Your task to perform on an android device: Go to privacy settings Image 0: 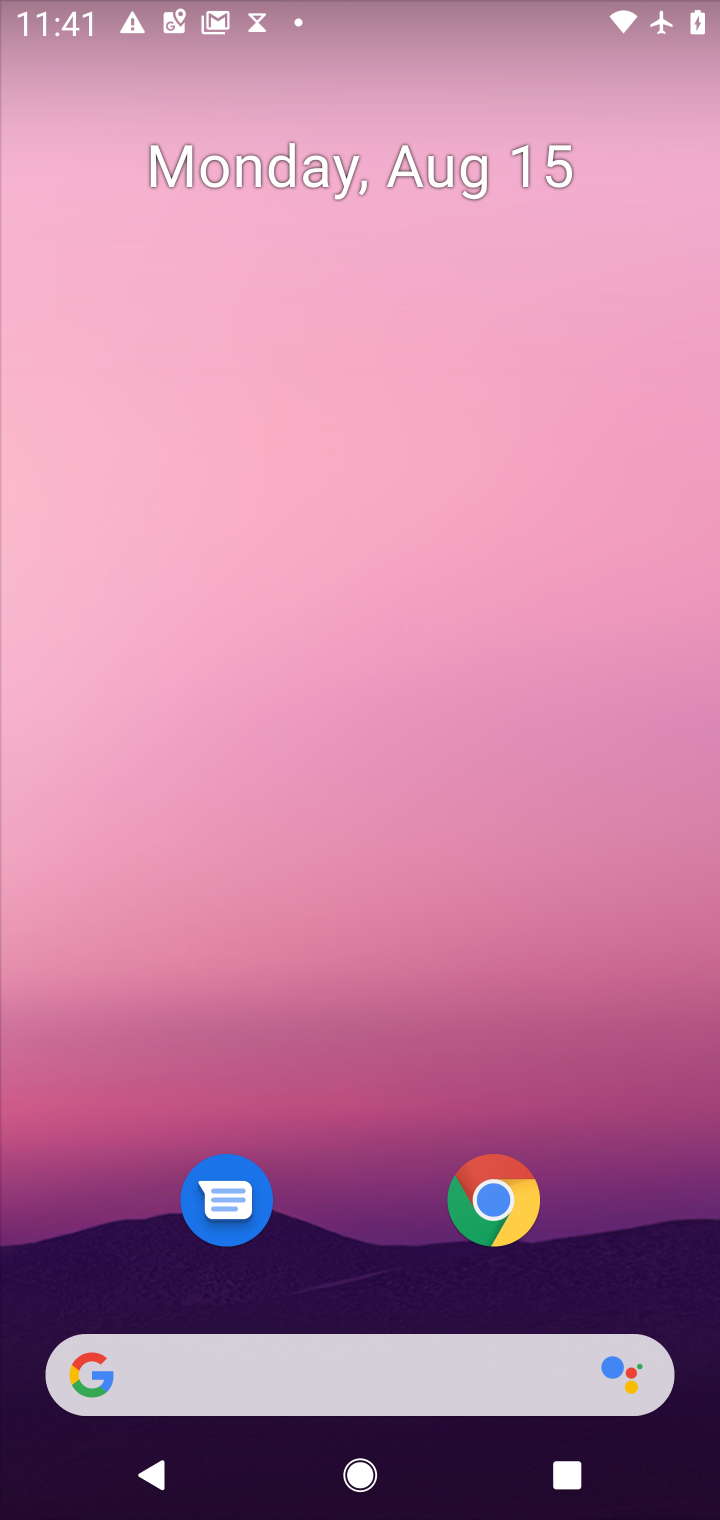
Step 0: drag from (189, 415) to (189, 310)
Your task to perform on an android device: Go to privacy settings Image 1: 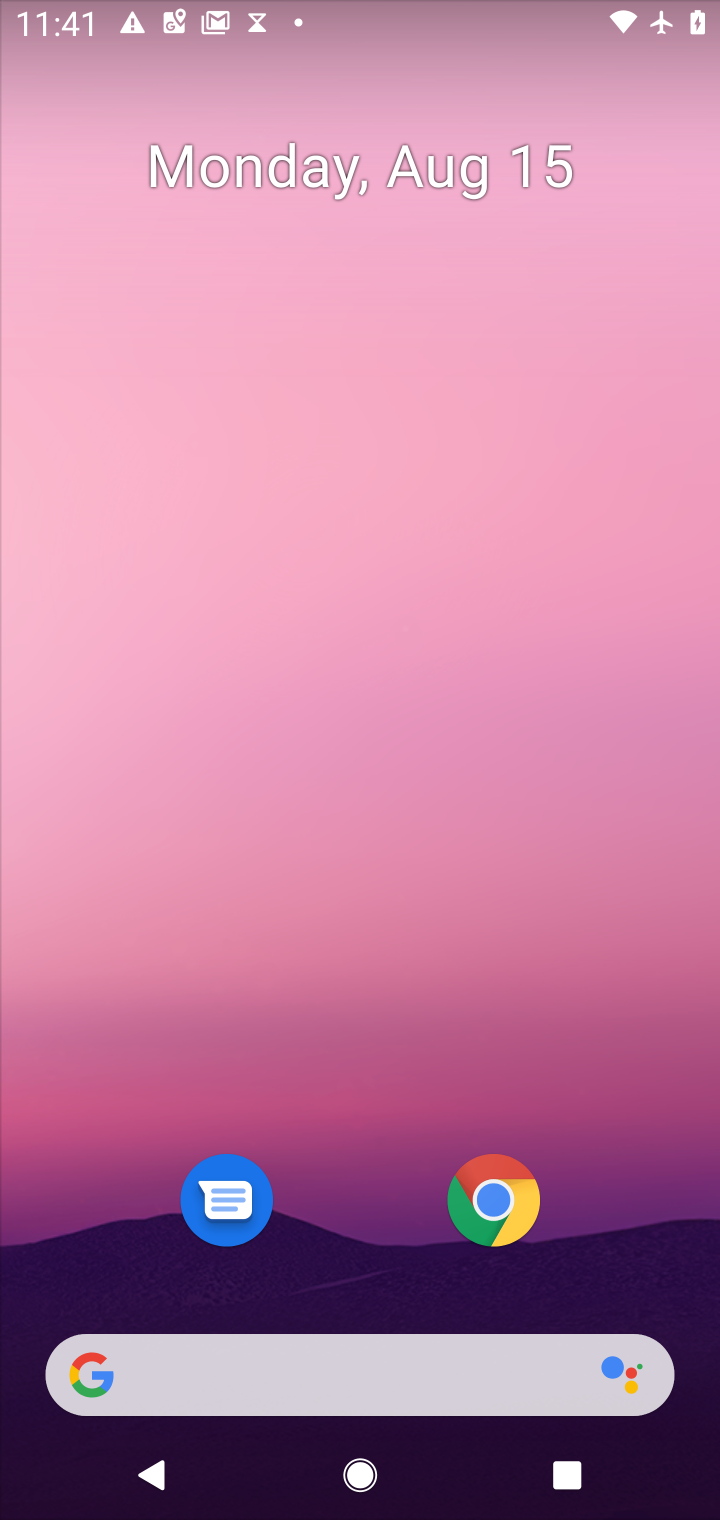
Step 1: drag from (338, 1189) to (417, 539)
Your task to perform on an android device: Go to privacy settings Image 2: 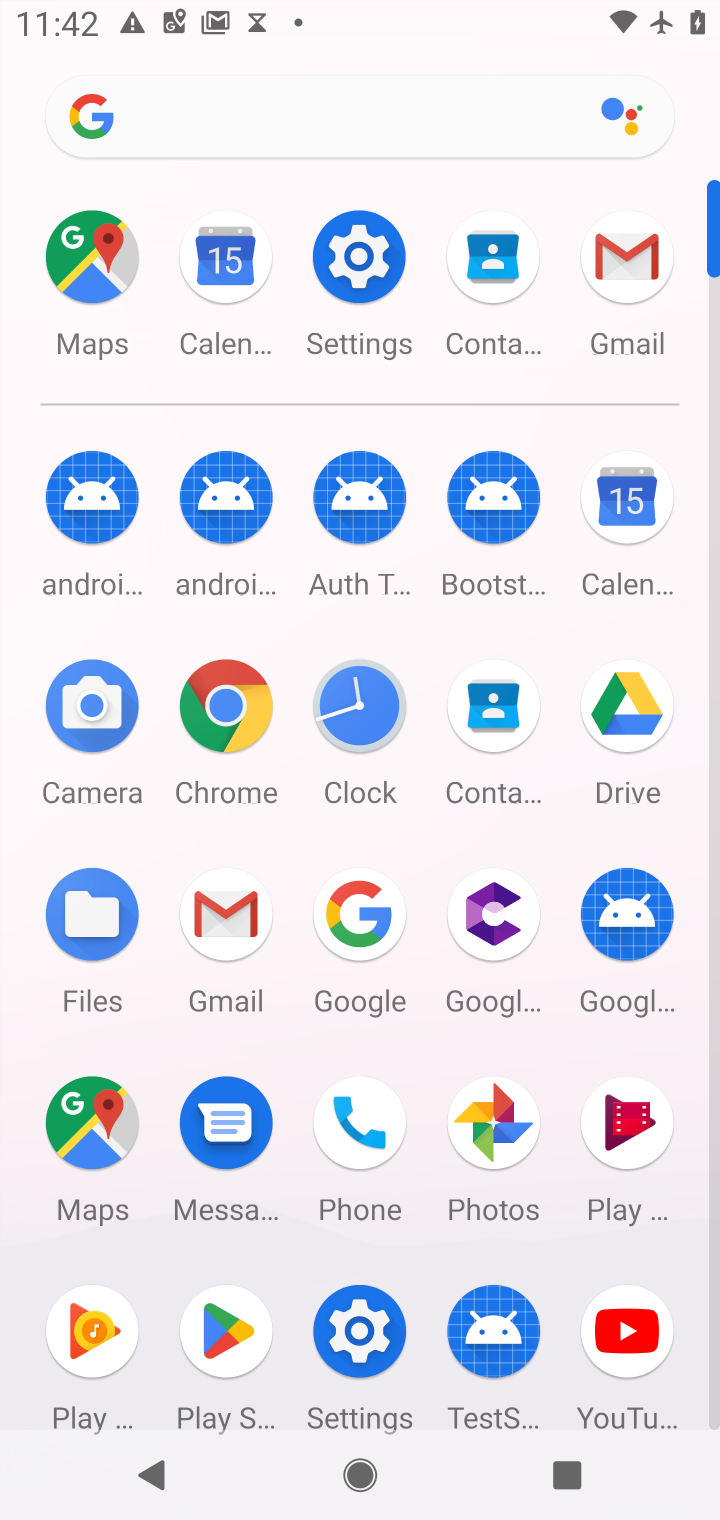
Step 2: click (362, 274)
Your task to perform on an android device: Go to privacy settings Image 3: 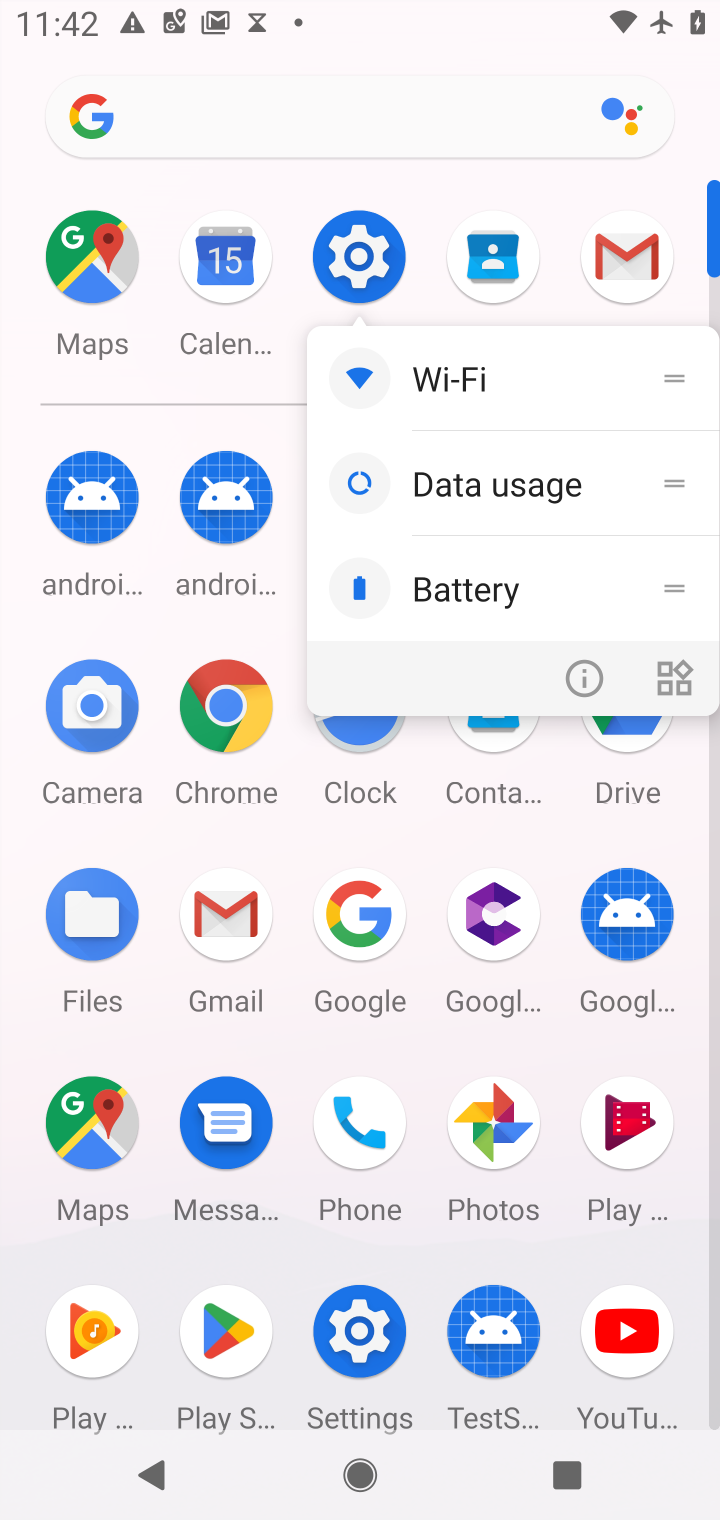
Step 3: click (355, 256)
Your task to perform on an android device: Go to privacy settings Image 4: 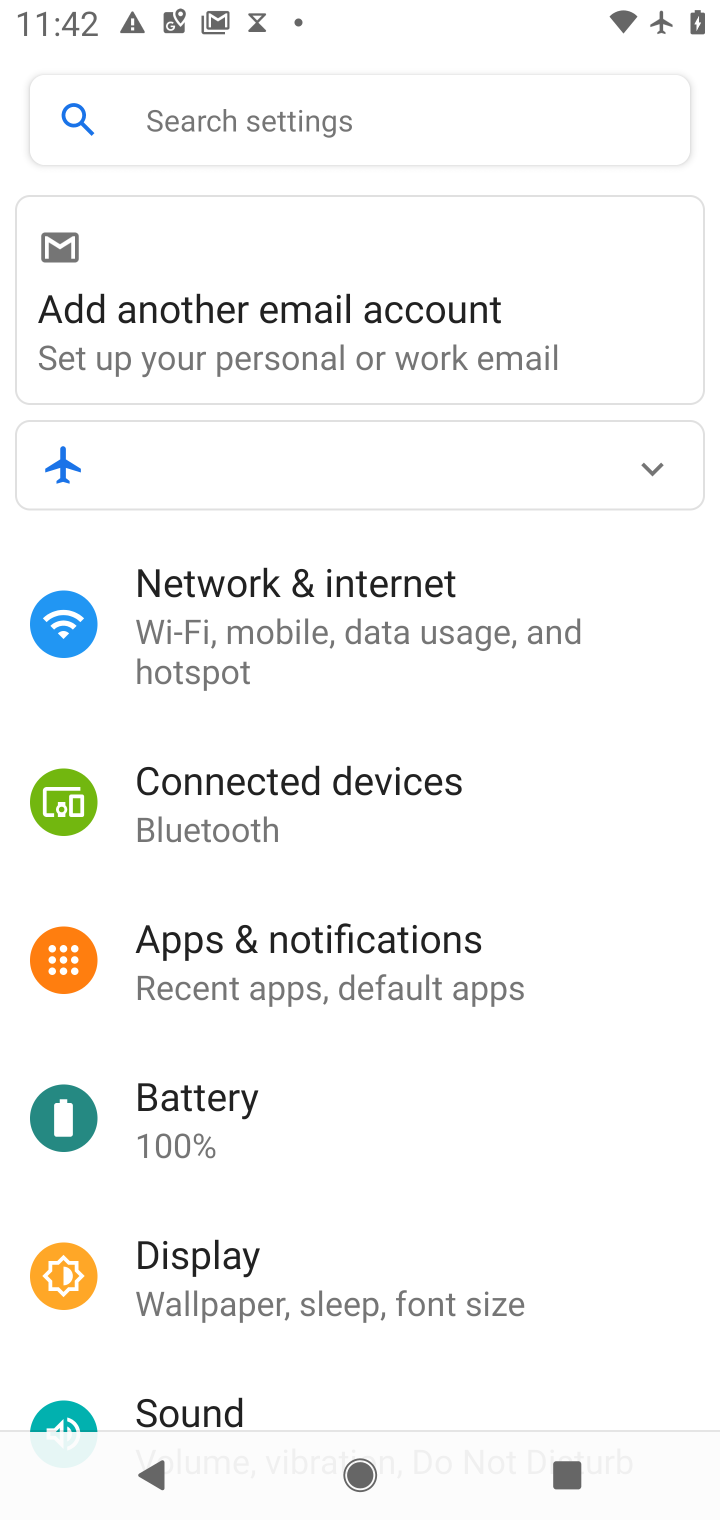
Step 4: drag from (291, 1196) to (352, 574)
Your task to perform on an android device: Go to privacy settings Image 5: 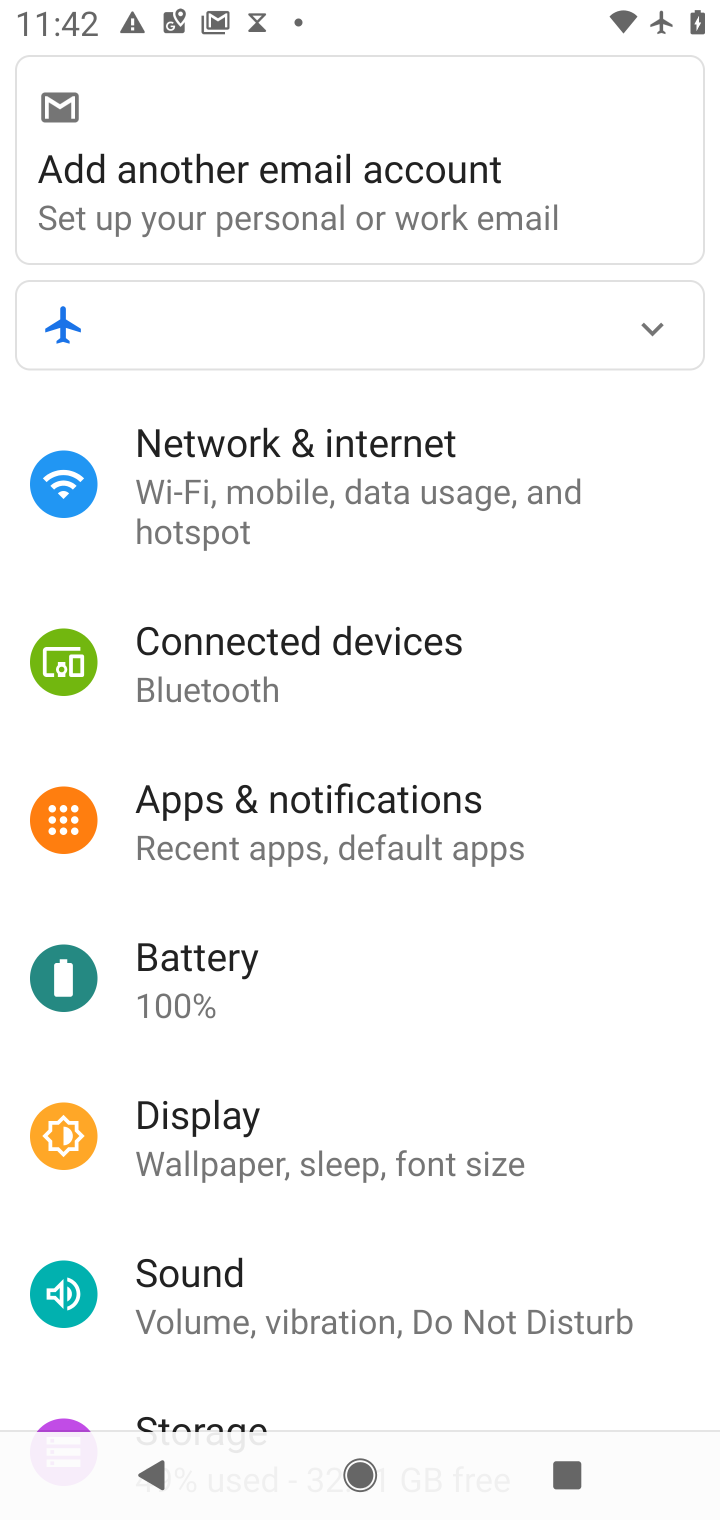
Step 5: drag from (396, 1212) to (386, 679)
Your task to perform on an android device: Go to privacy settings Image 6: 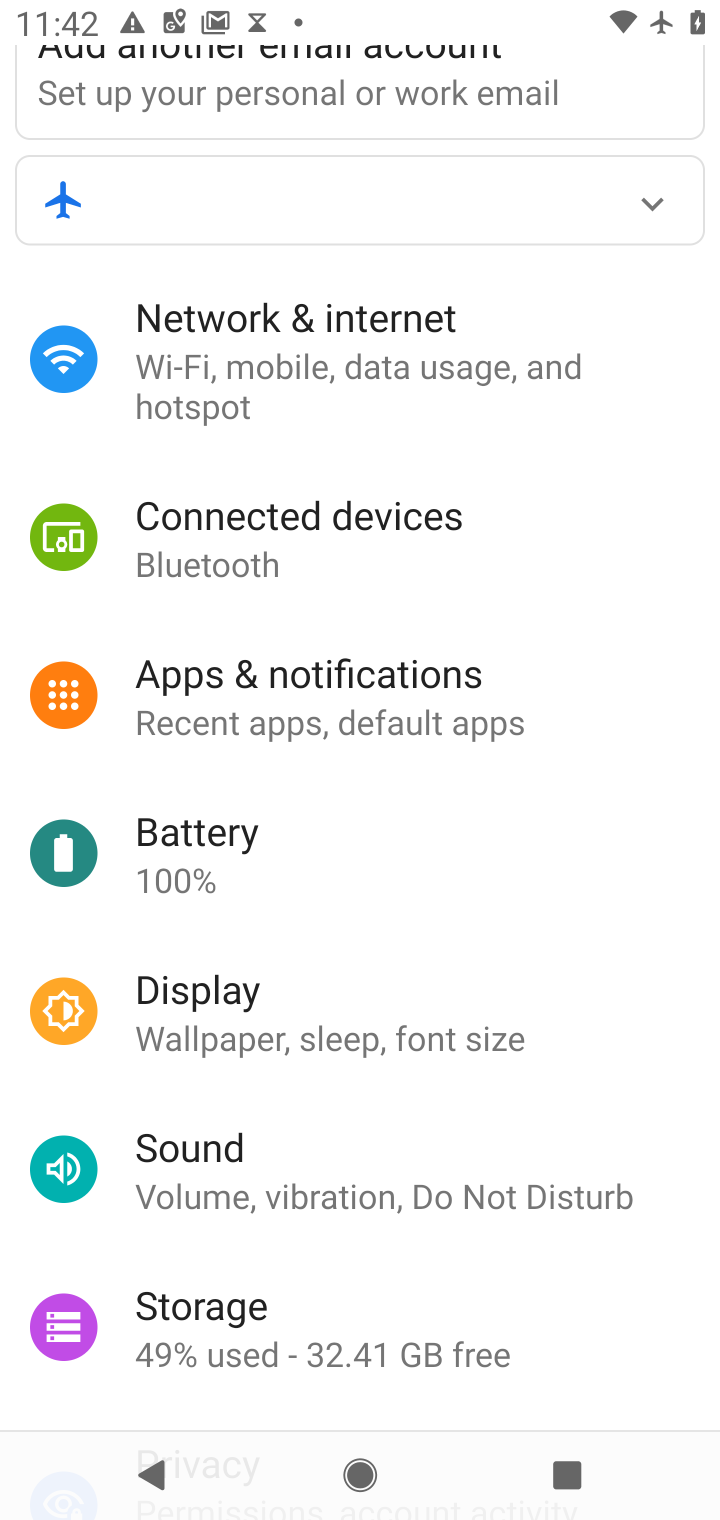
Step 6: drag from (321, 1303) to (321, 559)
Your task to perform on an android device: Go to privacy settings Image 7: 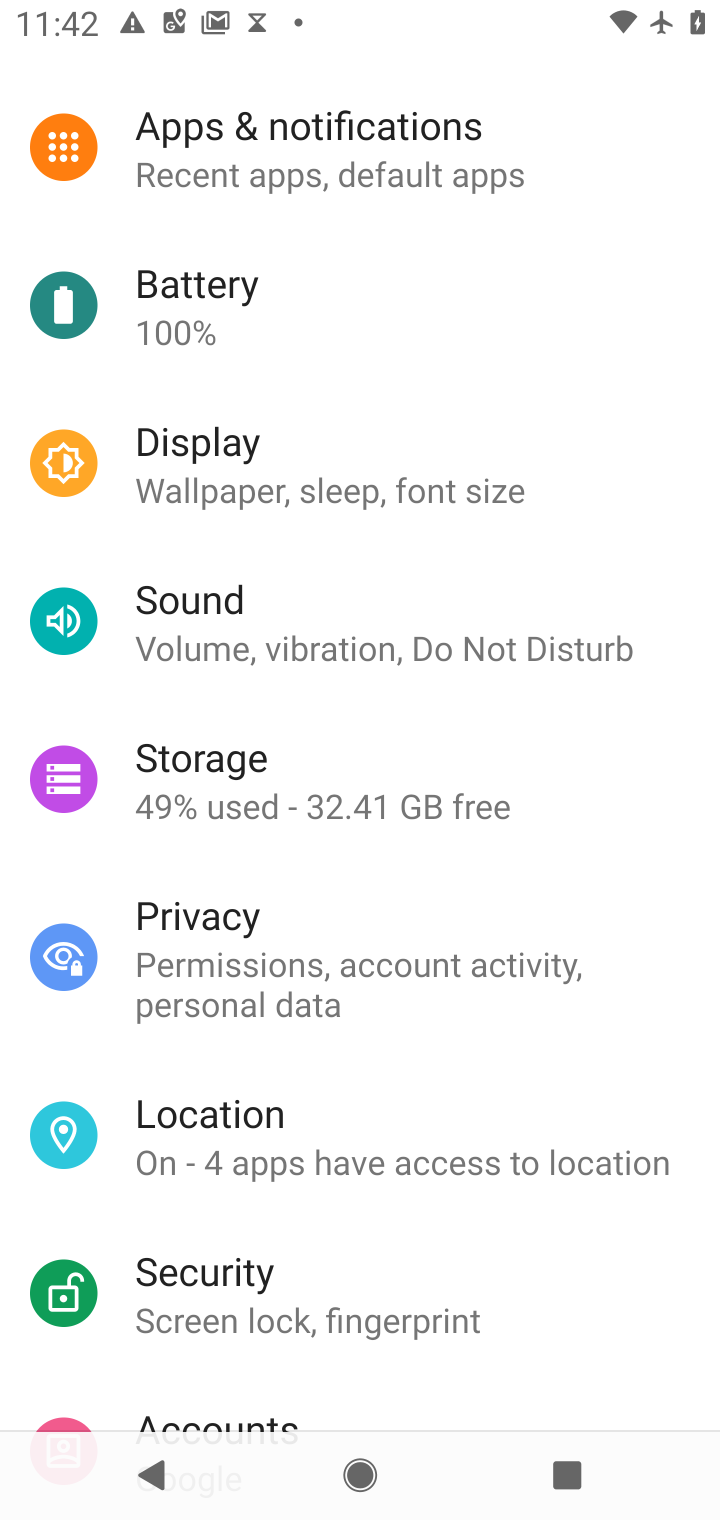
Step 7: drag from (304, 1037) to (347, 520)
Your task to perform on an android device: Go to privacy settings Image 8: 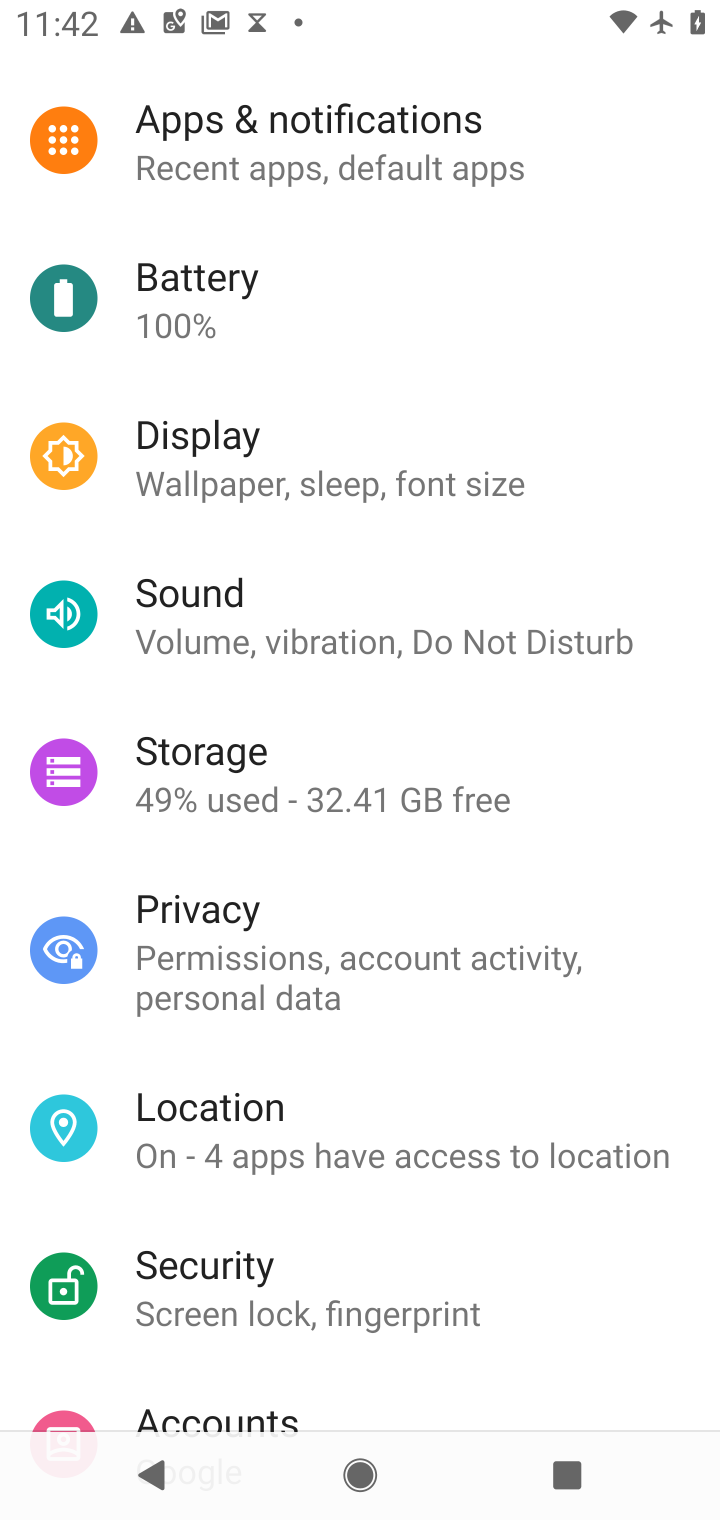
Step 8: drag from (287, 1275) to (282, 1176)
Your task to perform on an android device: Go to privacy settings Image 9: 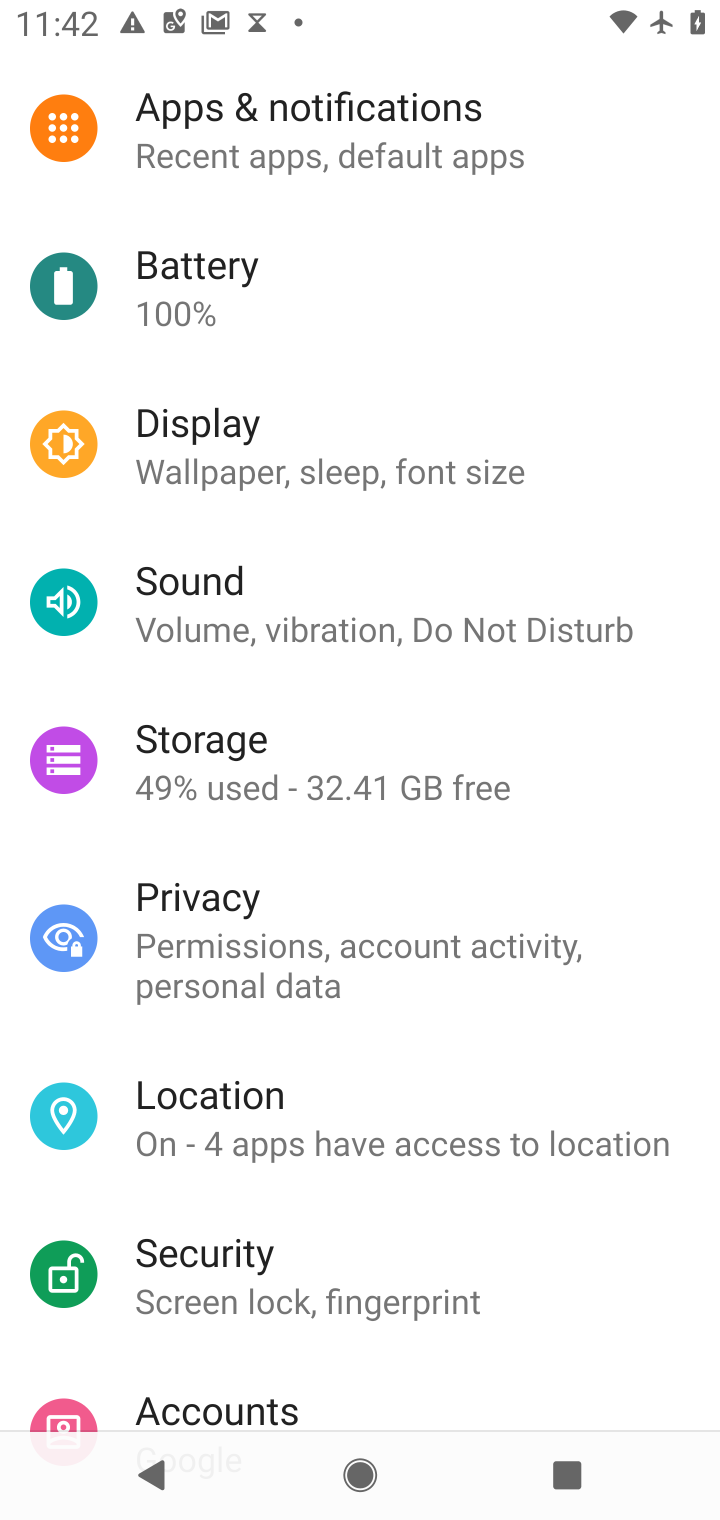
Step 9: click (233, 949)
Your task to perform on an android device: Go to privacy settings Image 10: 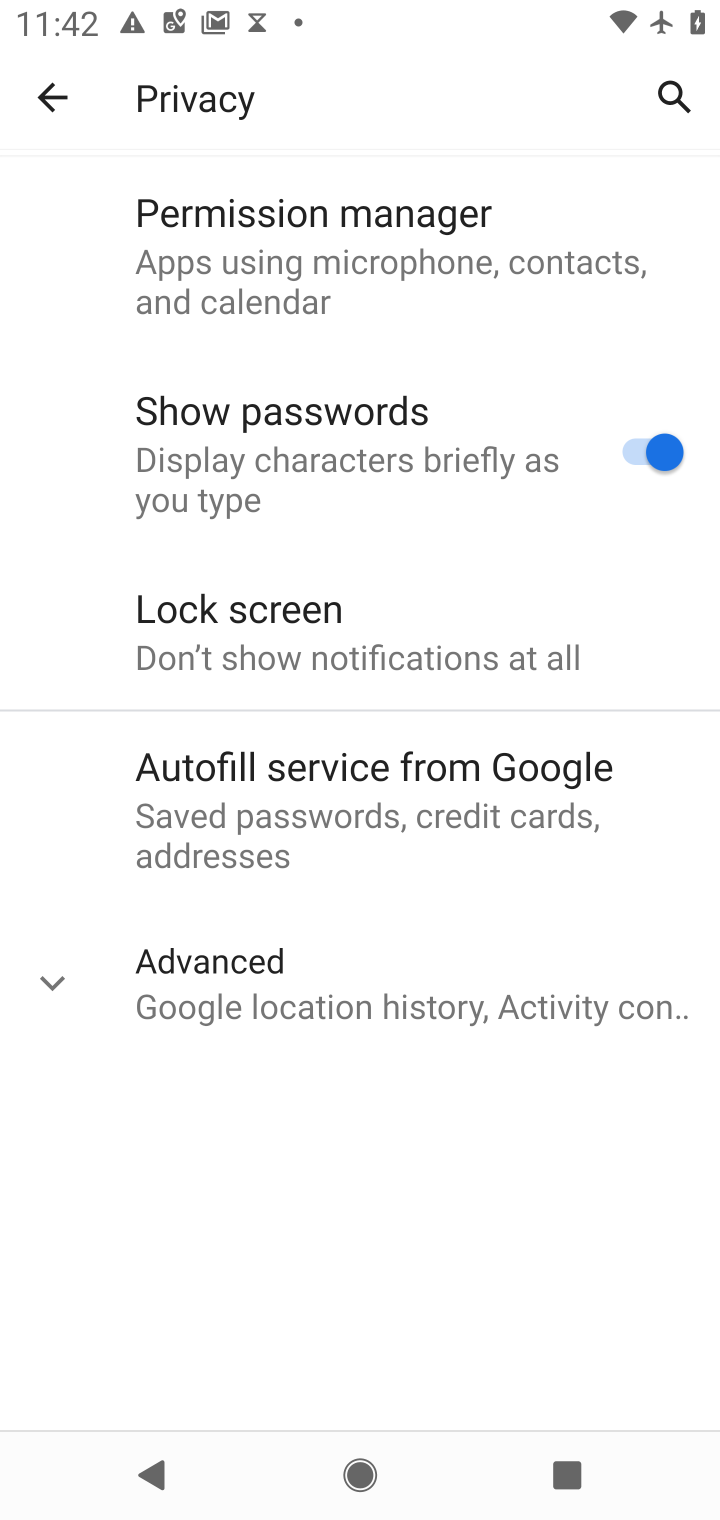
Step 10: task complete